Your task to perform on an android device: uninstall "Fetch Rewards" Image 0: 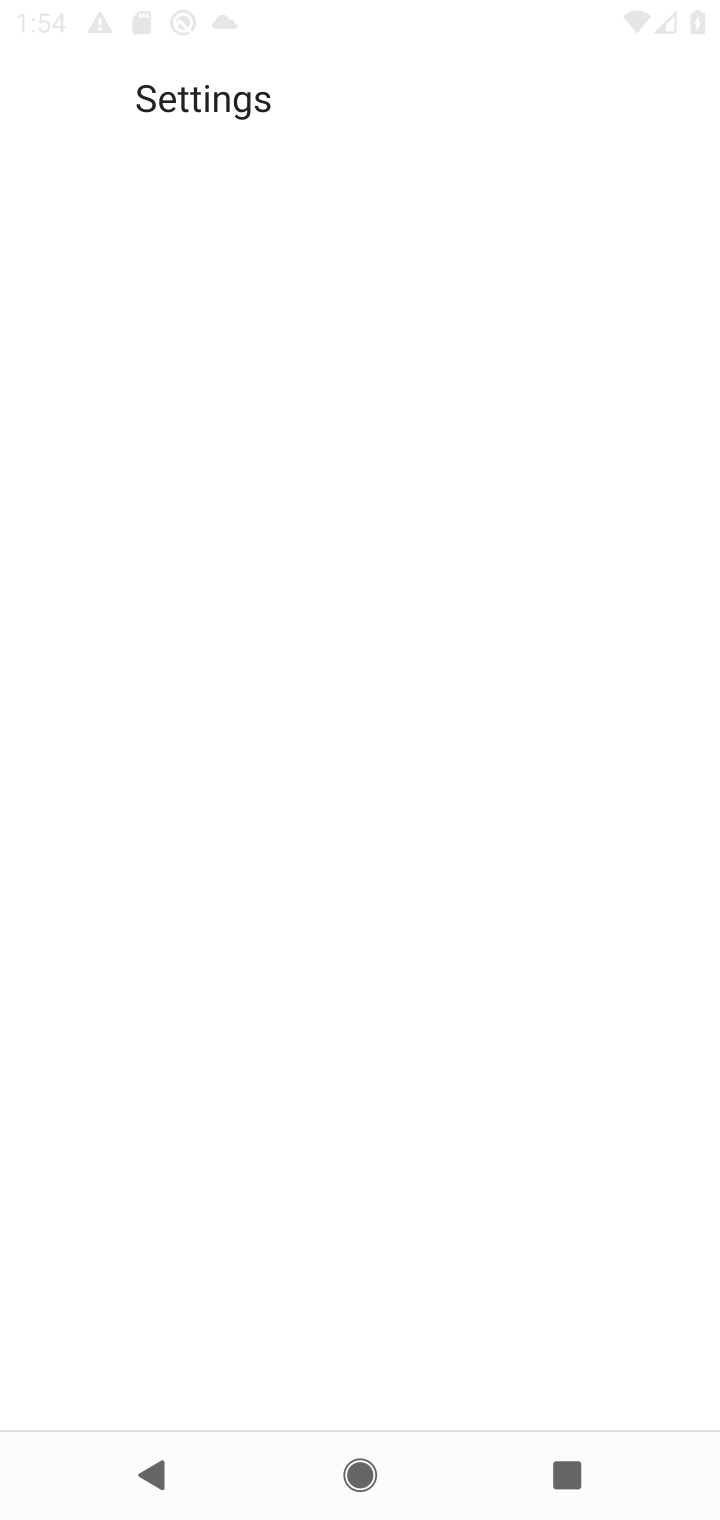
Step 0: press home button
Your task to perform on an android device: uninstall "Fetch Rewards" Image 1: 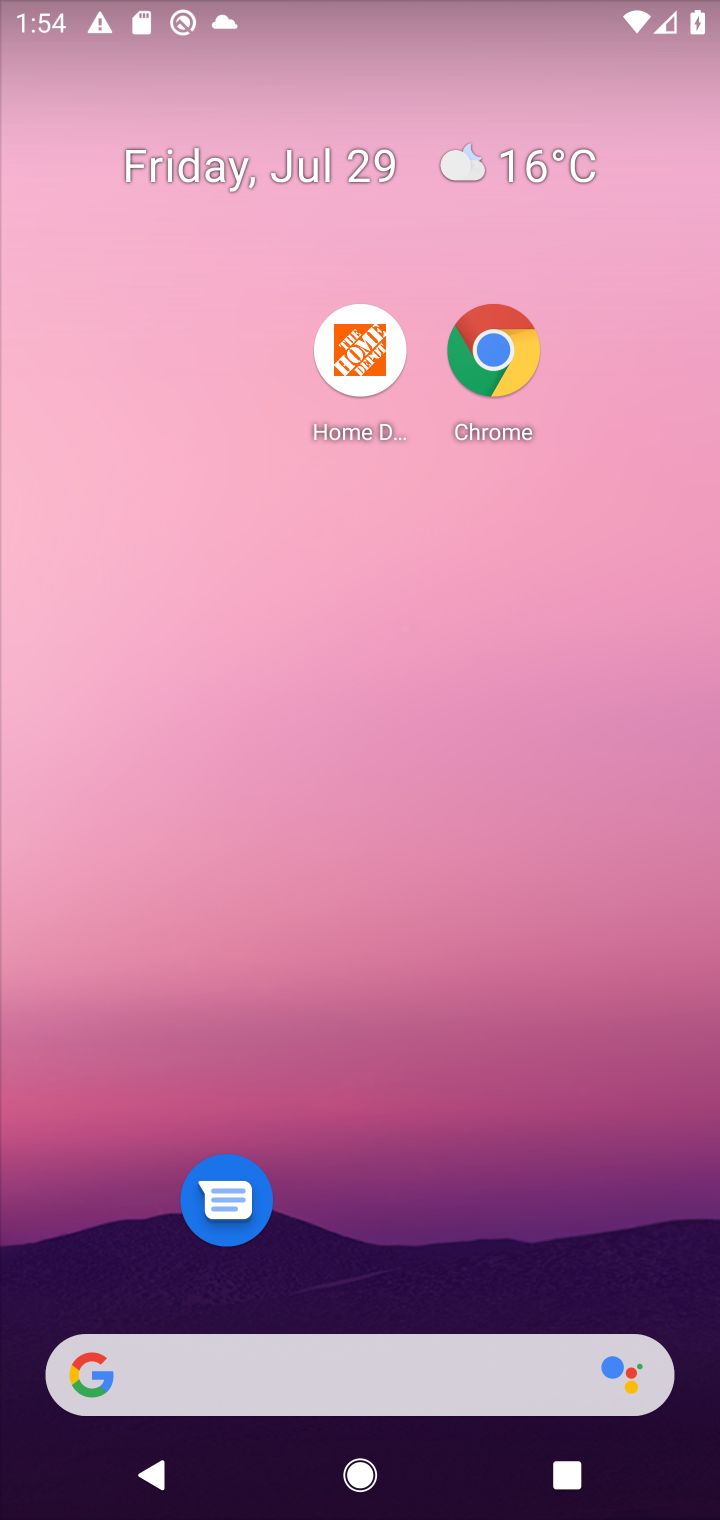
Step 1: drag from (533, 465) to (556, 48)
Your task to perform on an android device: uninstall "Fetch Rewards" Image 2: 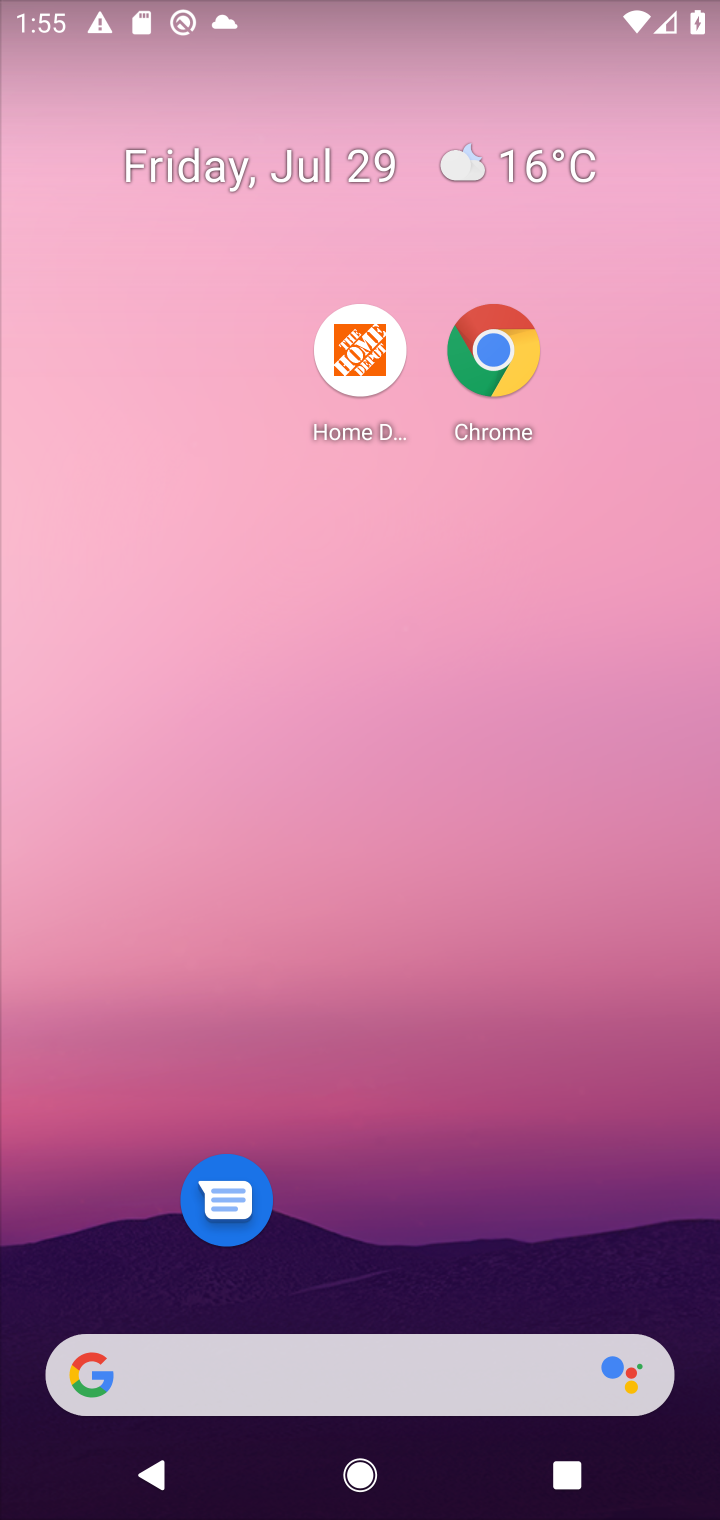
Step 2: drag from (497, 1030) to (484, 161)
Your task to perform on an android device: uninstall "Fetch Rewards" Image 3: 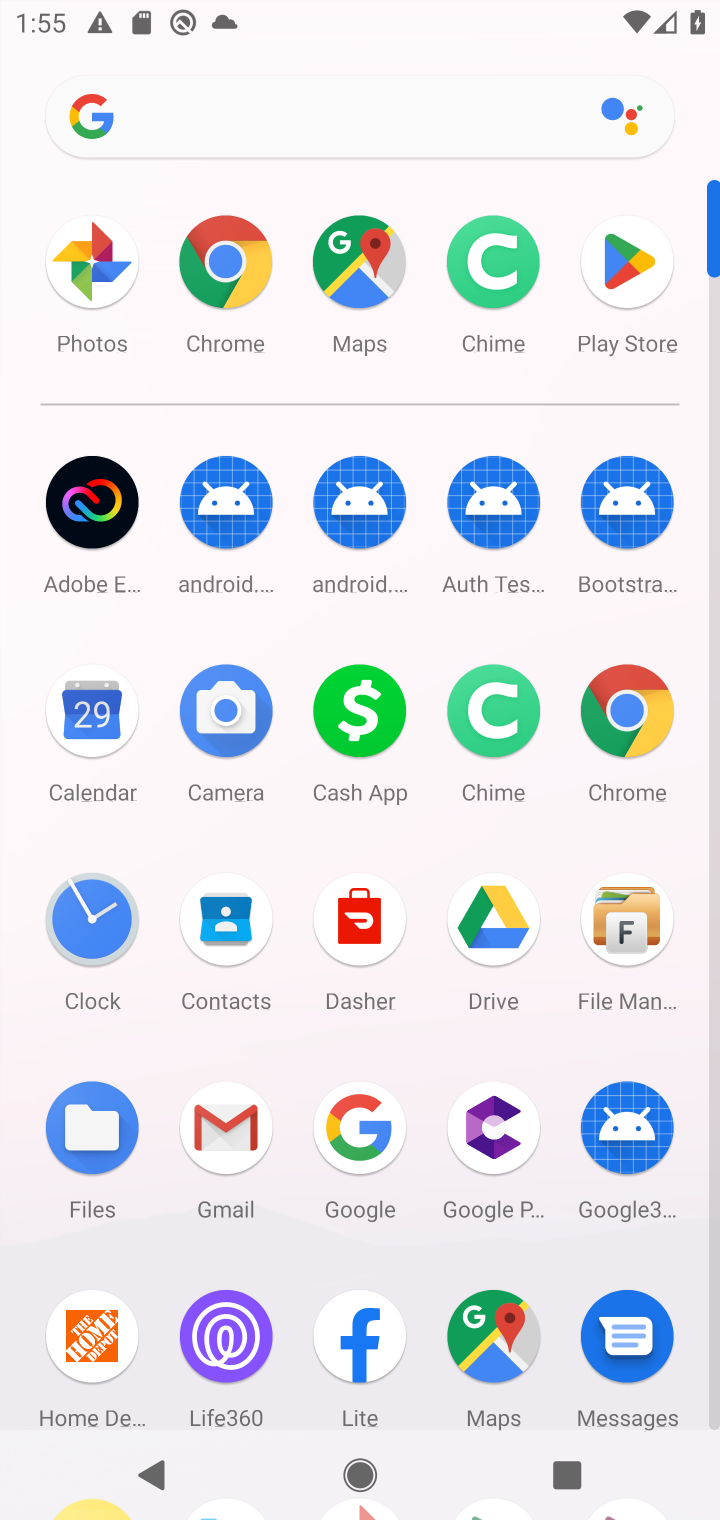
Step 3: click (612, 277)
Your task to perform on an android device: uninstall "Fetch Rewards" Image 4: 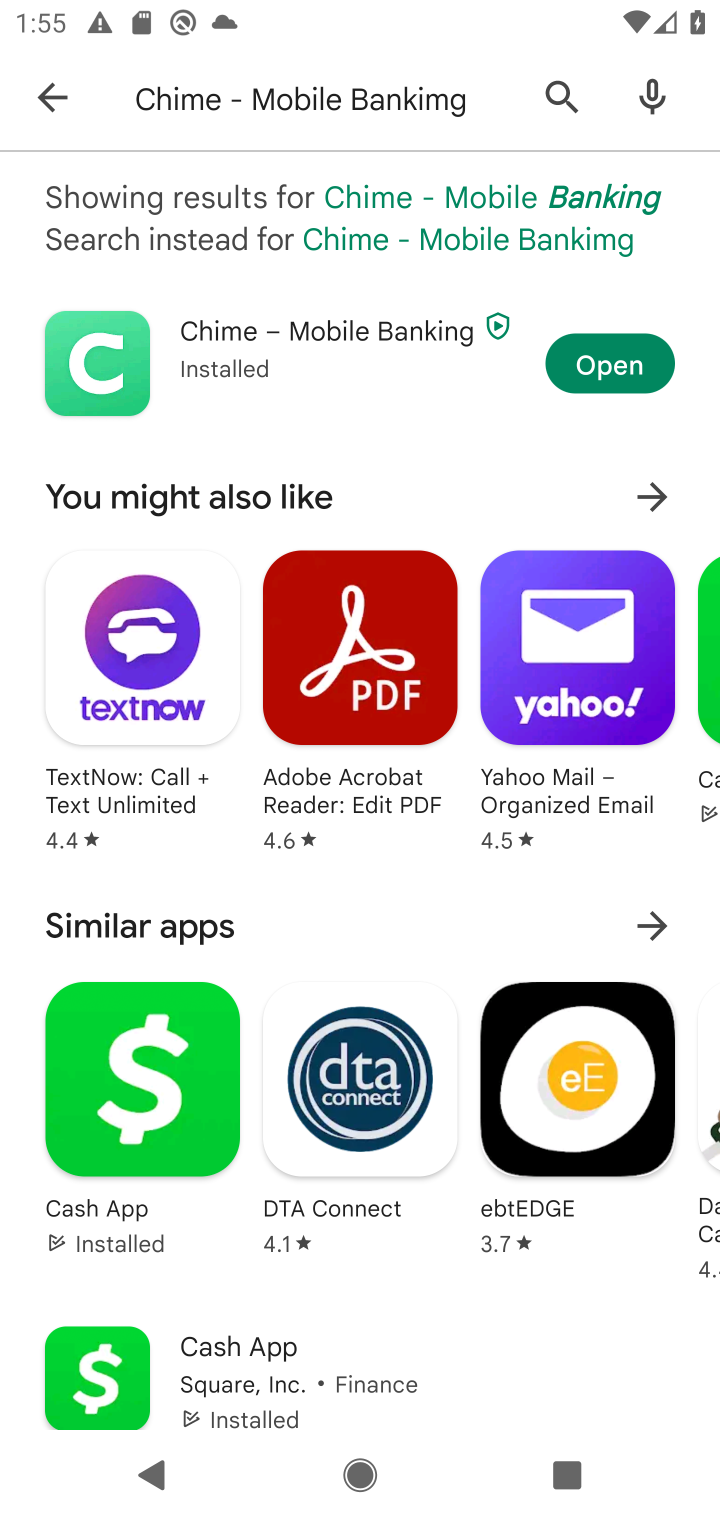
Step 4: click (423, 117)
Your task to perform on an android device: uninstall "Fetch Rewards" Image 5: 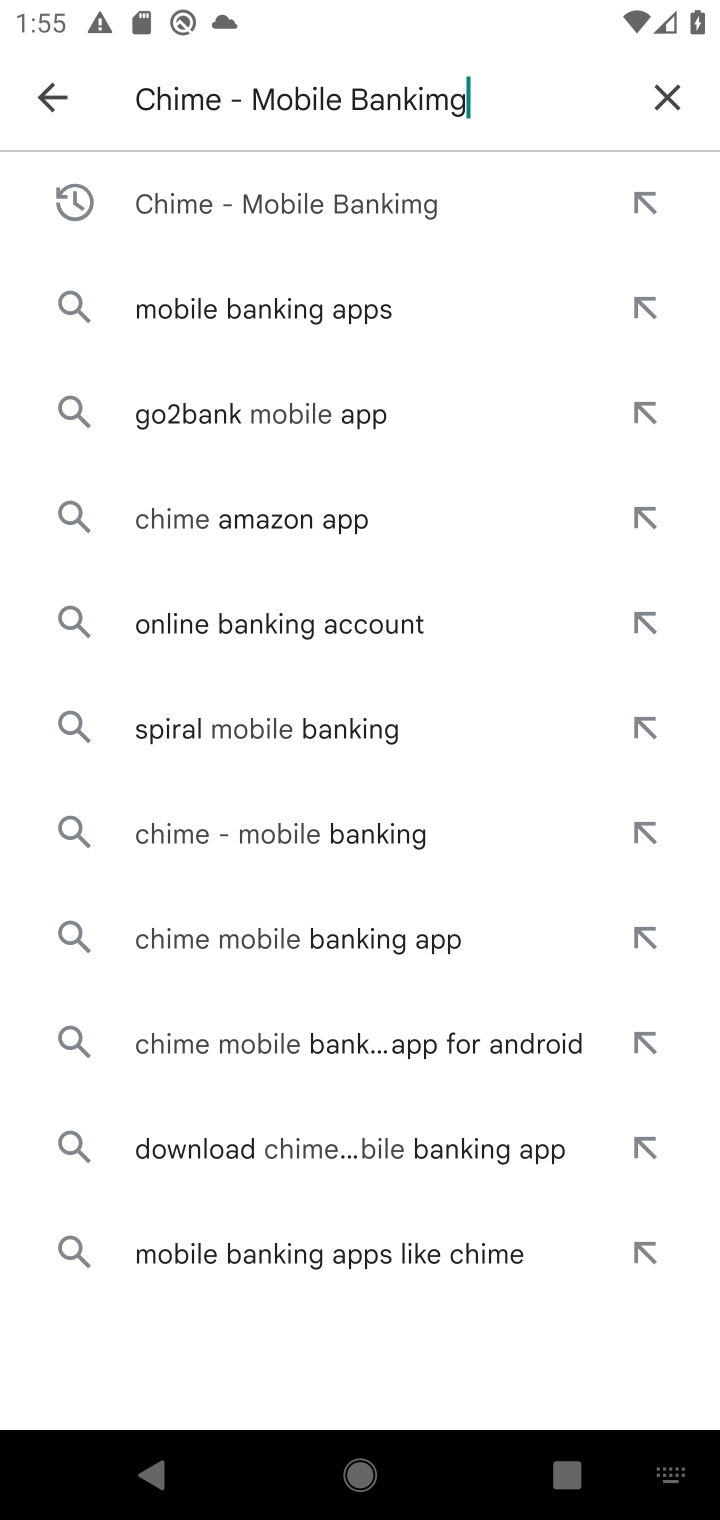
Step 5: click (680, 82)
Your task to perform on an android device: uninstall "Fetch Rewards" Image 6: 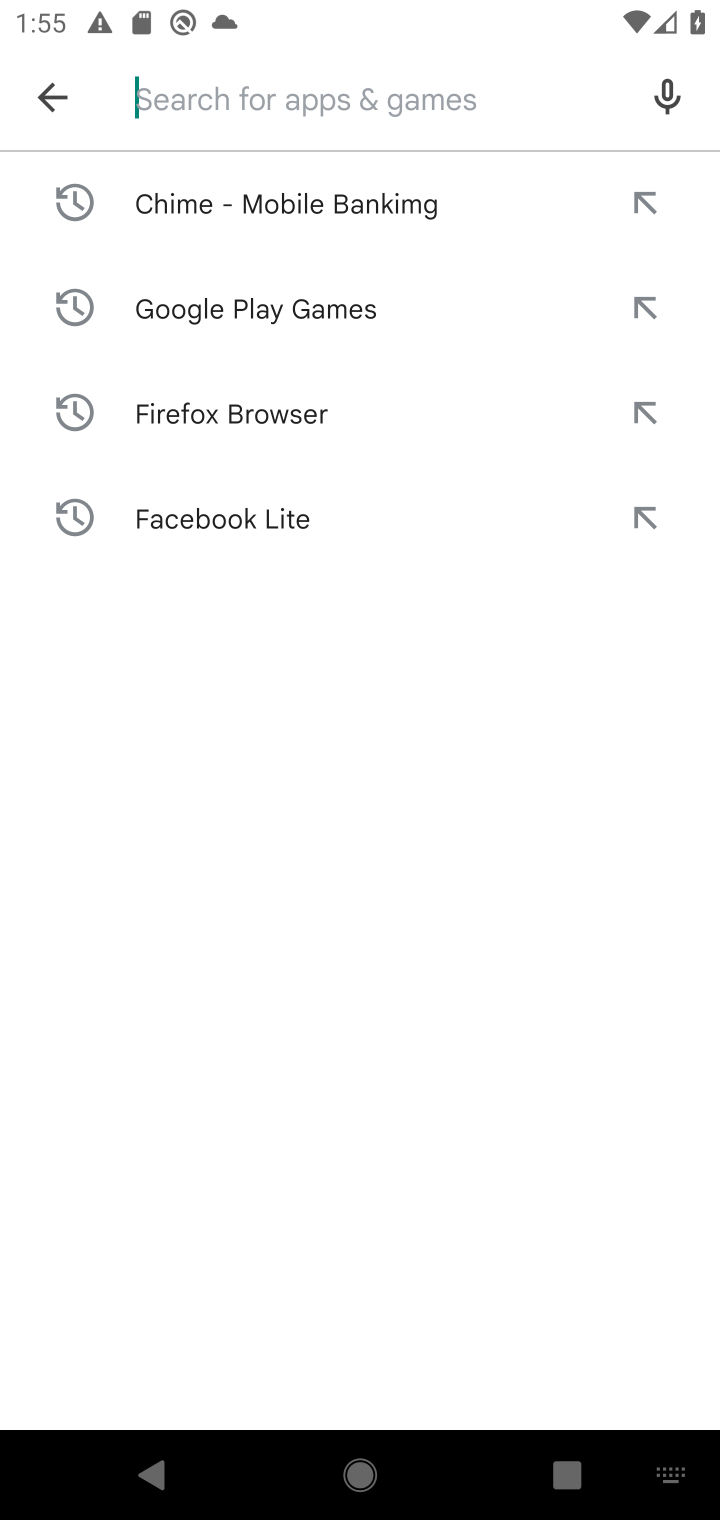
Step 6: type "Fetch Rewards"
Your task to perform on an android device: uninstall "Fetch Rewards" Image 7: 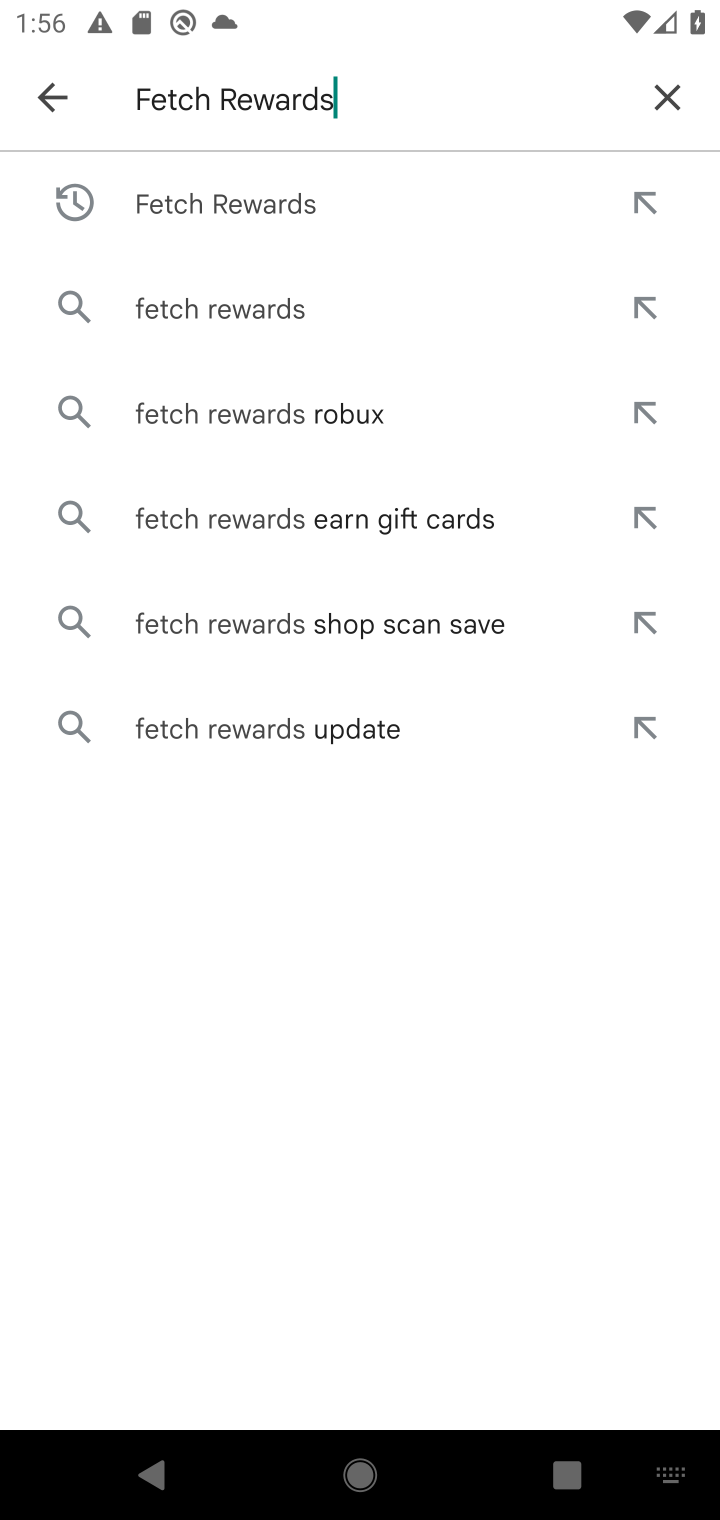
Step 7: press enter
Your task to perform on an android device: uninstall "Fetch Rewards" Image 8: 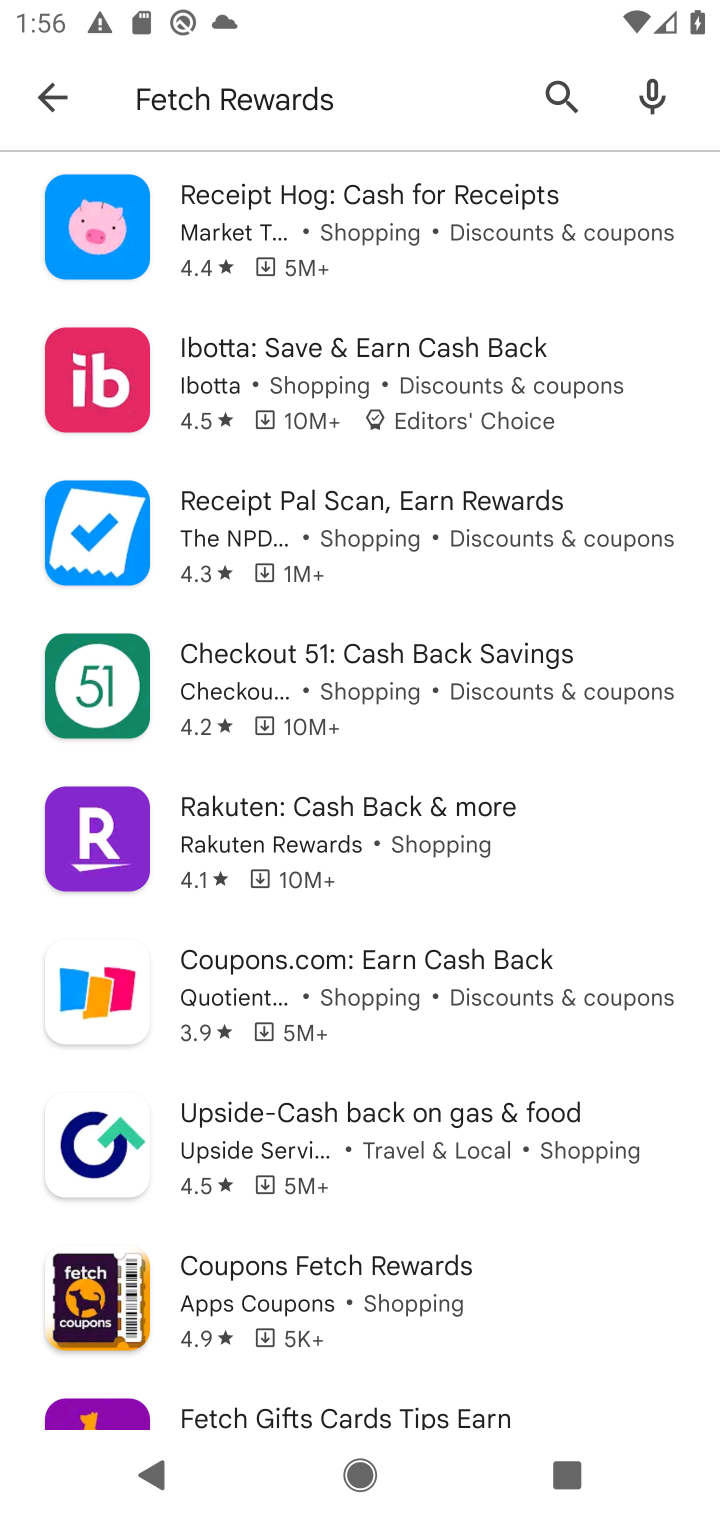
Step 8: task complete